Your task to perform on an android device: Open Google Image 0: 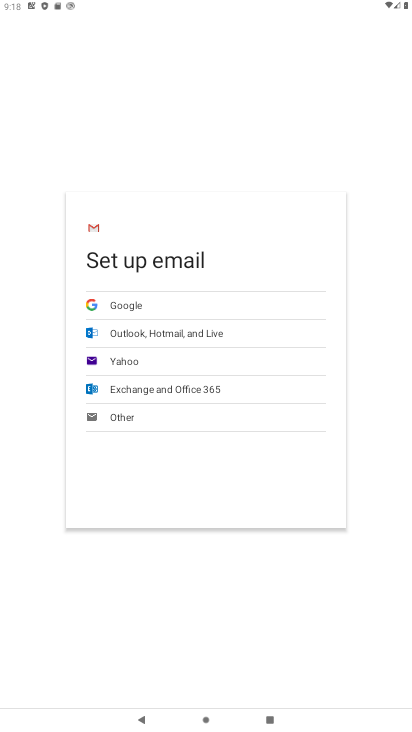
Step 0: press home button
Your task to perform on an android device: Open Google Image 1: 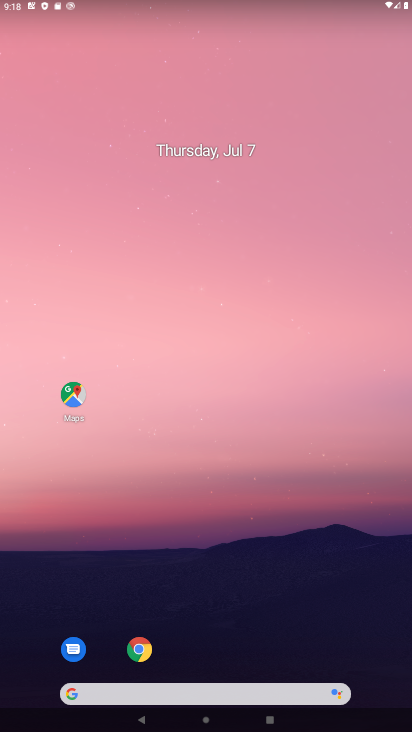
Step 1: drag from (243, 721) to (235, 136)
Your task to perform on an android device: Open Google Image 2: 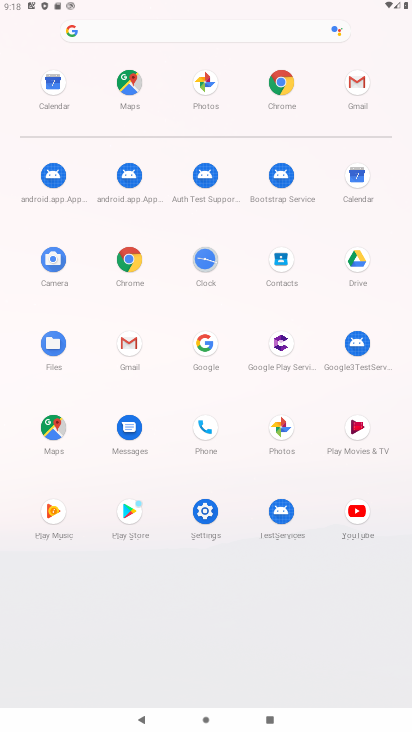
Step 2: click (200, 343)
Your task to perform on an android device: Open Google Image 3: 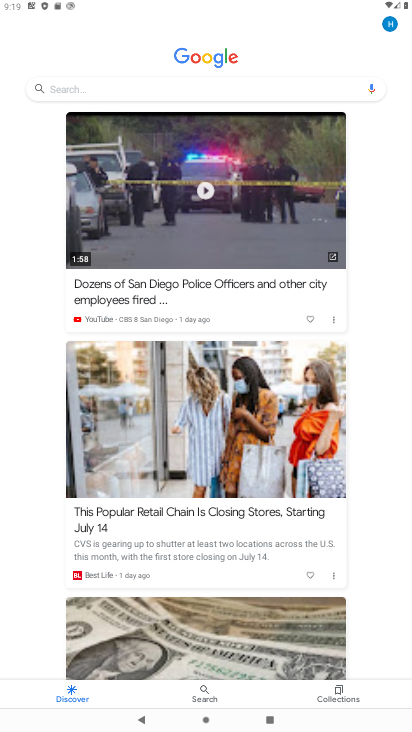
Step 3: task complete